Your task to perform on an android device: check android version Image 0: 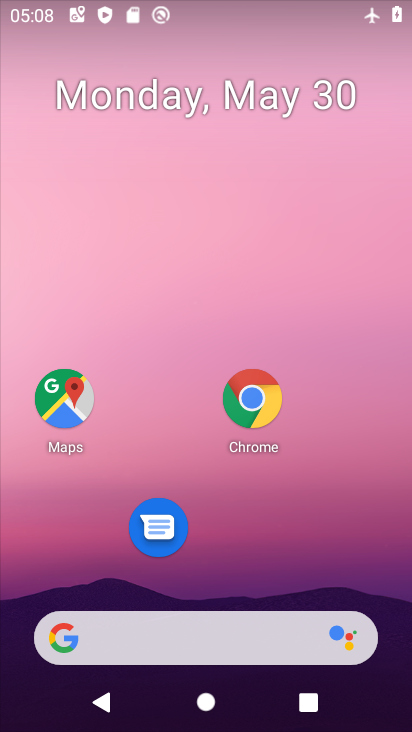
Step 0: drag from (241, 649) to (237, 183)
Your task to perform on an android device: check android version Image 1: 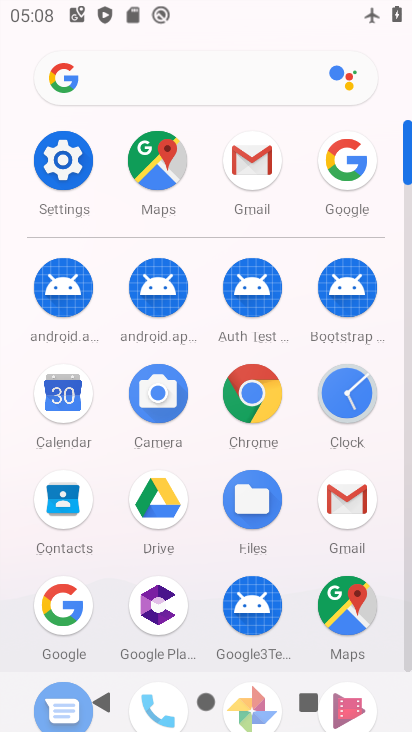
Step 1: click (79, 164)
Your task to perform on an android device: check android version Image 2: 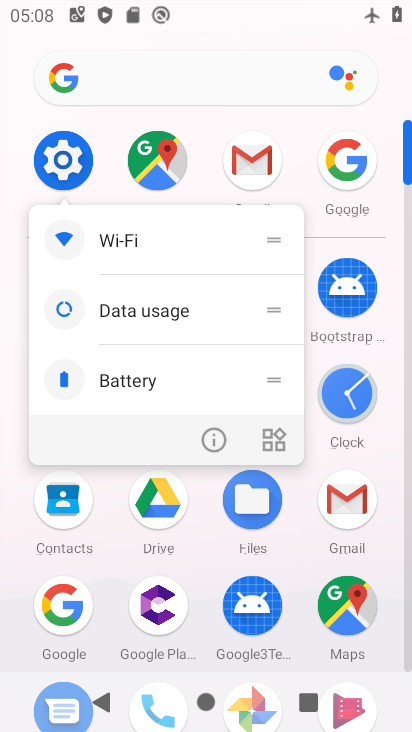
Step 2: click (59, 153)
Your task to perform on an android device: check android version Image 3: 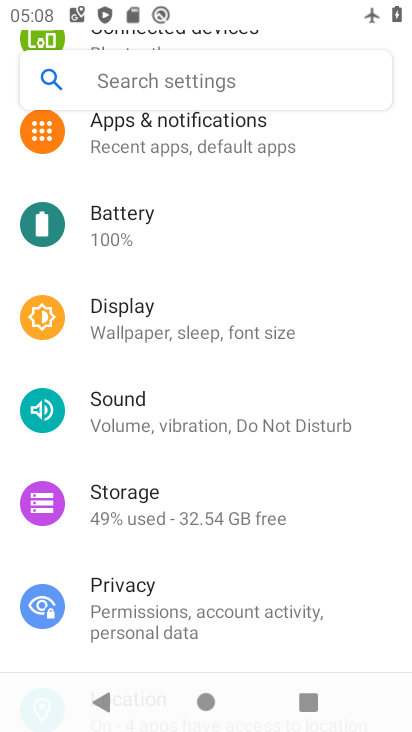
Step 3: drag from (195, 617) to (179, 137)
Your task to perform on an android device: check android version Image 4: 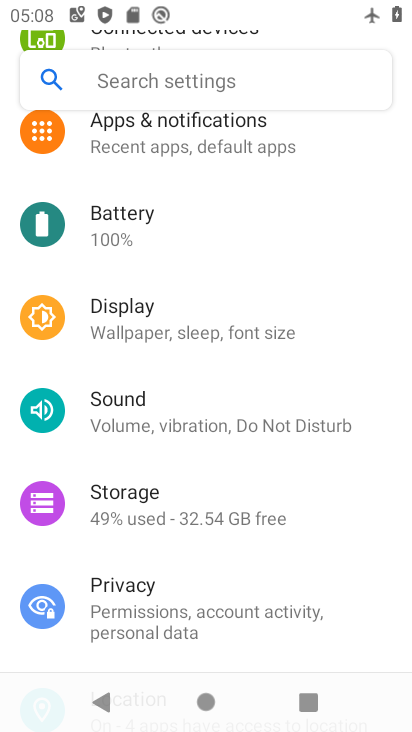
Step 4: drag from (209, 640) to (207, 158)
Your task to perform on an android device: check android version Image 5: 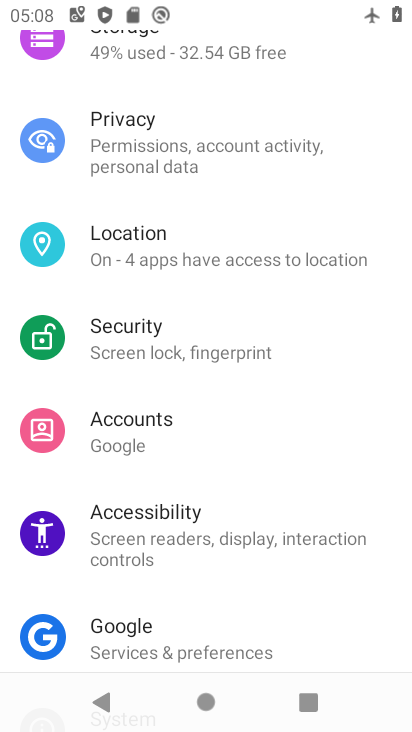
Step 5: drag from (196, 618) to (198, 180)
Your task to perform on an android device: check android version Image 6: 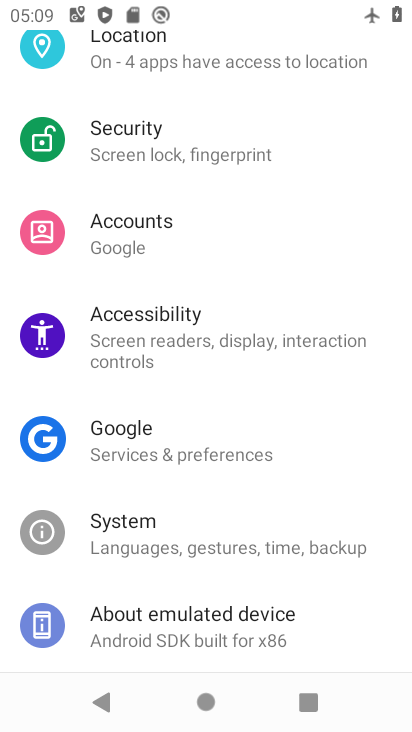
Step 6: click (175, 616)
Your task to perform on an android device: check android version Image 7: 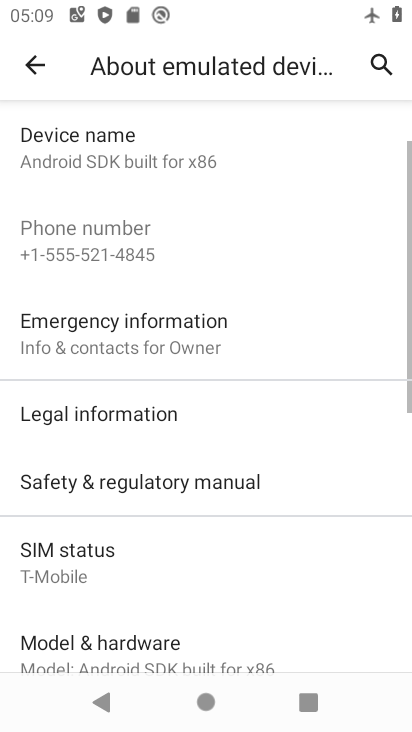
Step 7: drag from (197, 636) to (204, 120)
Your task to perform on an android device: check android version Image 8: 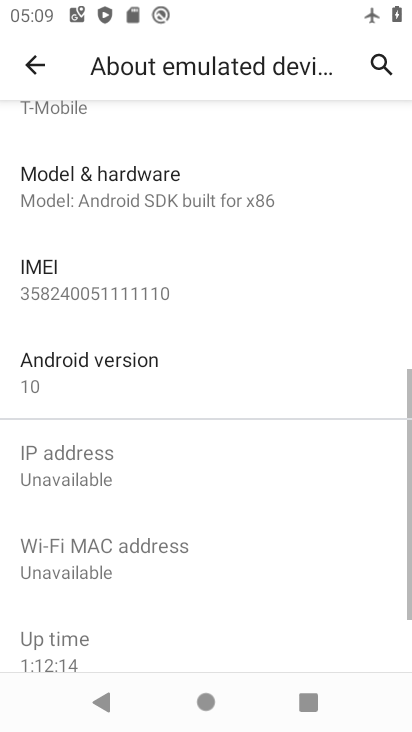
Step 8: click (67, 360)
Your task to perform on an android device: check android version Image 9: 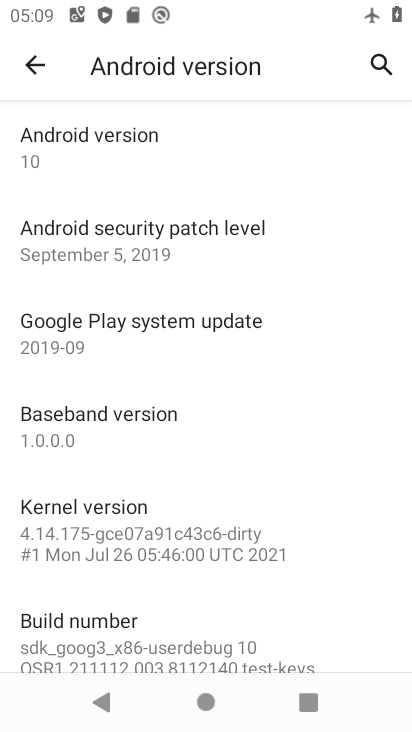
Step 9: task complete